Your task to perform on an android device: Go to Maps Image 0: 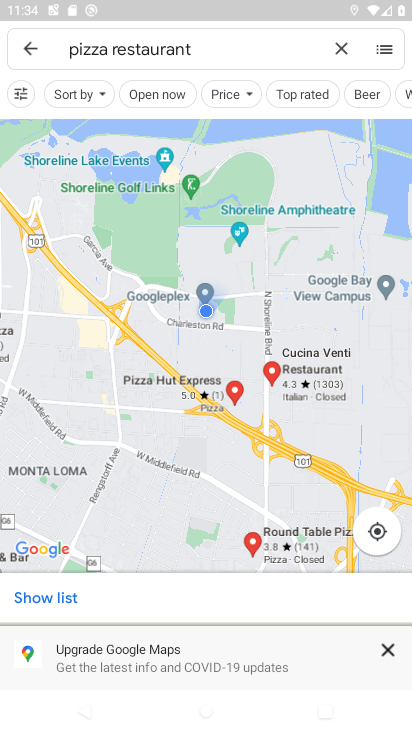
Step 0: click (194, 153)
Your task to perform on an android device: Go to Maps Image 1: 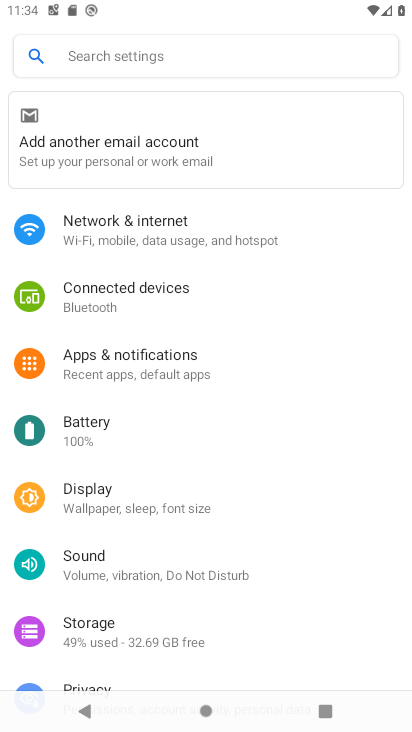
Step 1: press back button
Your task to perform on an android device: Go to Maps Image 2: 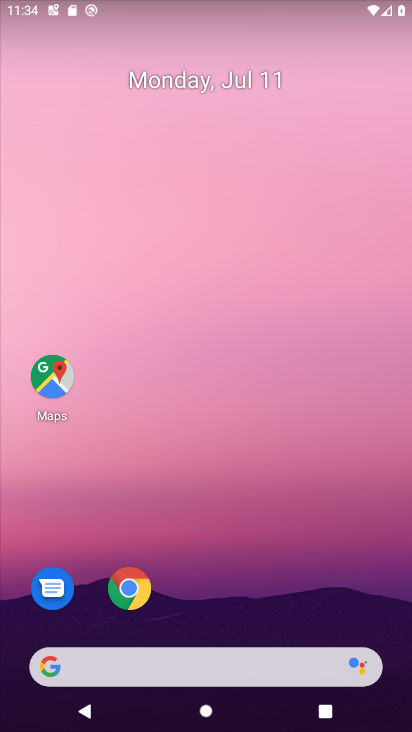
Step 2: drag from (264, 599) to (217, 320)
Your task to perform on an android device: Go to Maps Image 3: 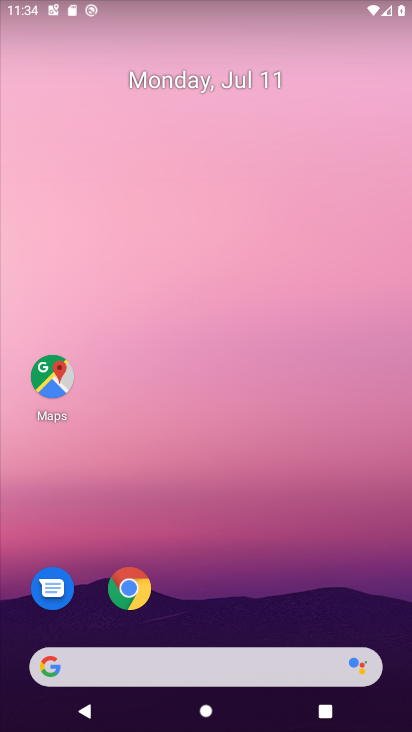
Step 3: drag from (212, 350) to (199, 252)
Your task to perform on an android device: Go to Maps Image 4: 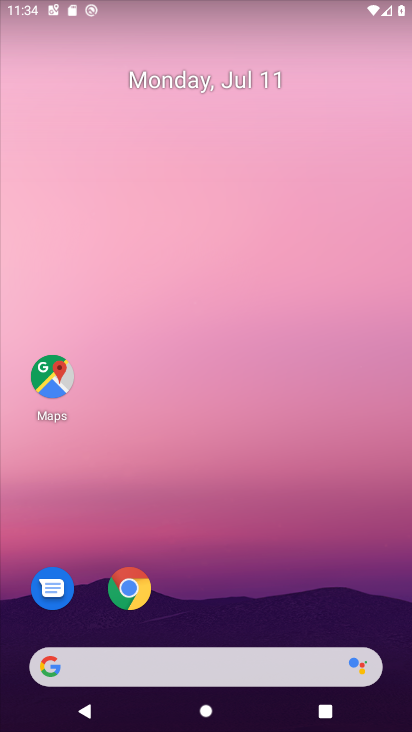
Step 4: drag from (278, 569) to (241, 367)
Your task to perform on an android device: Go to Maps Image 5: 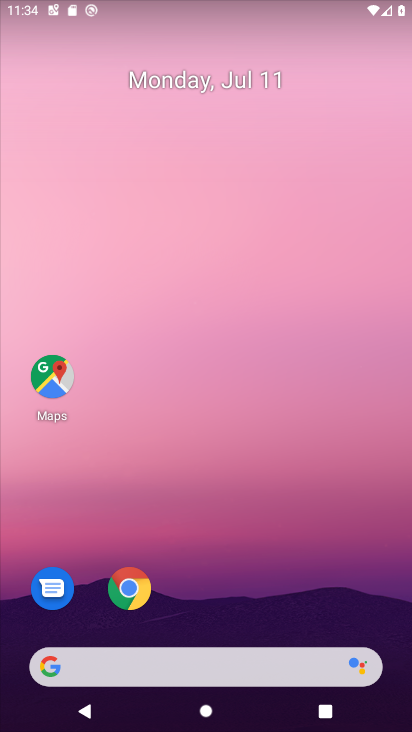
Step 5: drag from (202, 557) to (149, 213)
Your task to perform on an android device: Go to Maps Image 6: 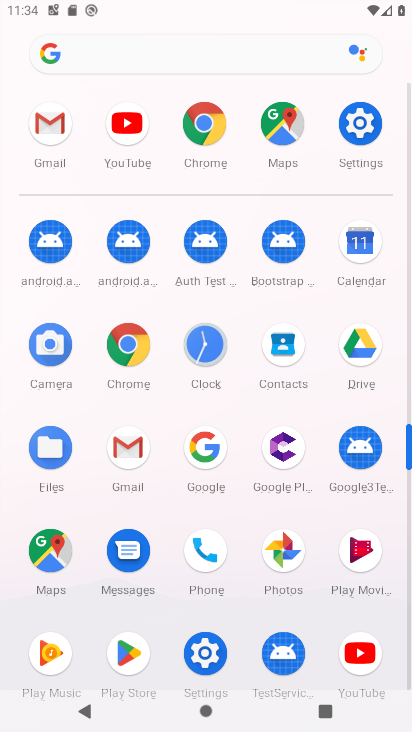
Step 6: click (45, 549)
Your task to perform on an android device: Go to Maps Image 7: 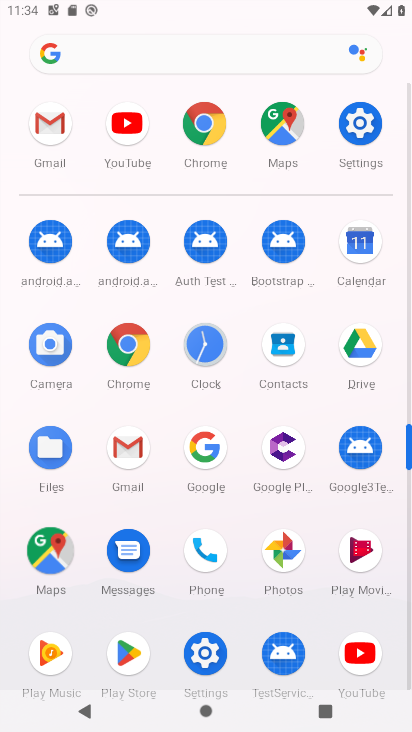
Step 7: click (47, 548)
Your task to perform on an android device: Go to Maps Image 8: 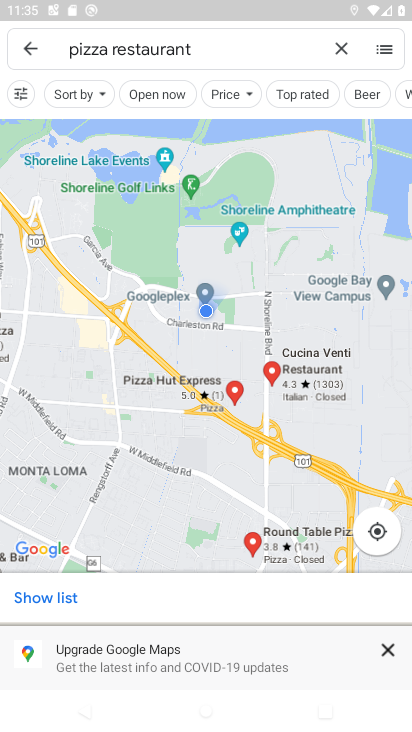
Step 8: task complete